Your task to perform on an android device: change the clock display to analog Image 0: 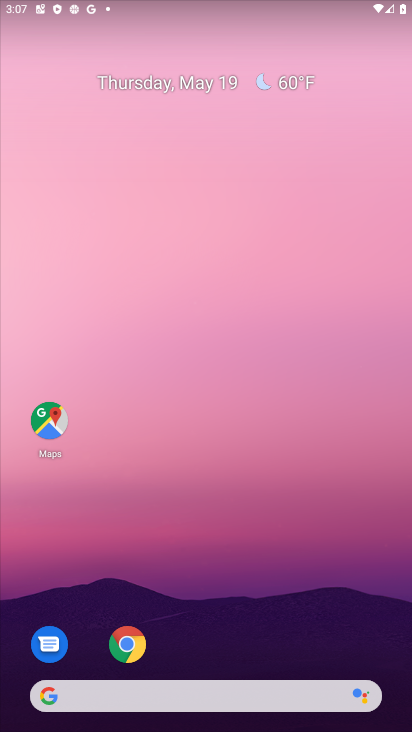
Step 0: drag from (278, 550) to (284, 203)
Your task to perform on an android device: change the clock display to analog Image 1: 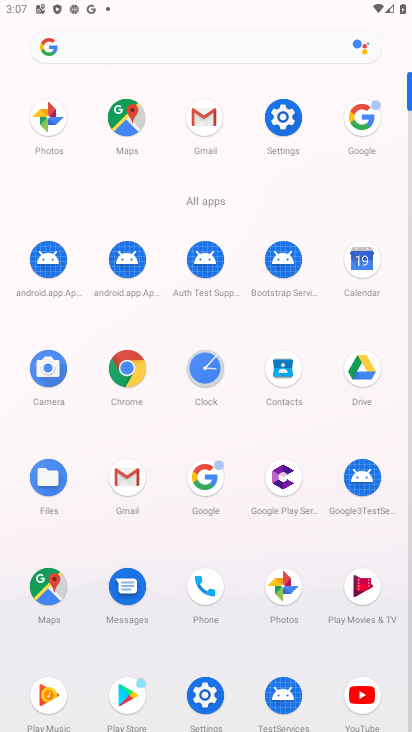
Step 1: click (205, 374)
Your task to perform on an android device: change the clock display to analog Image 2: 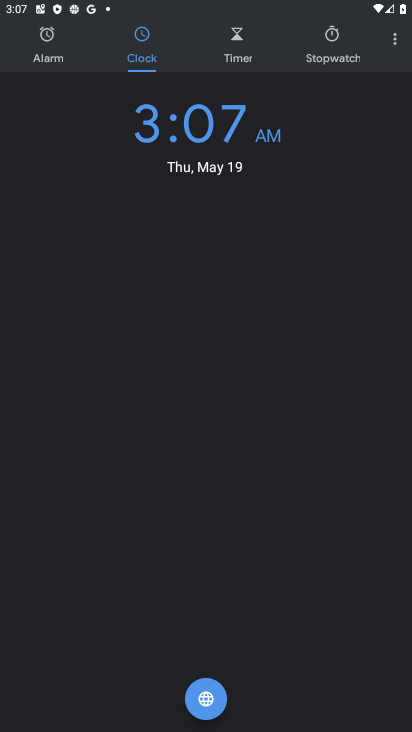
Step 2: click (393, 43)
Your task to perform on an android device: change the clock display to analog Image 3: 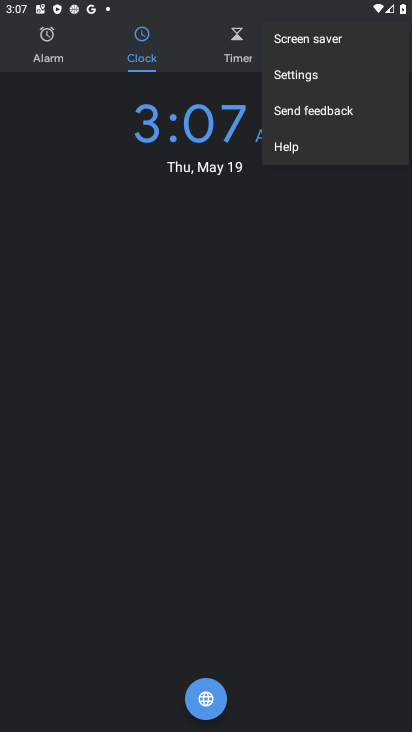
Step 3: click (337, 76)
Your task to perform on an android device: change the clock display to analog Image 4: 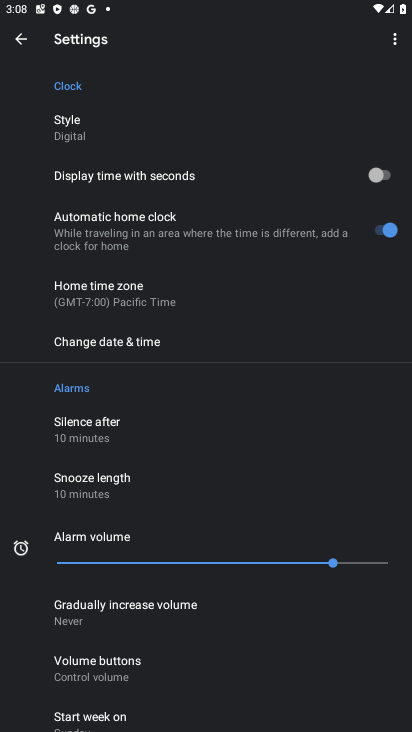
Step 4: click (147, 134)
Your task to perform on an android device: change the clock display to analog Image 5: 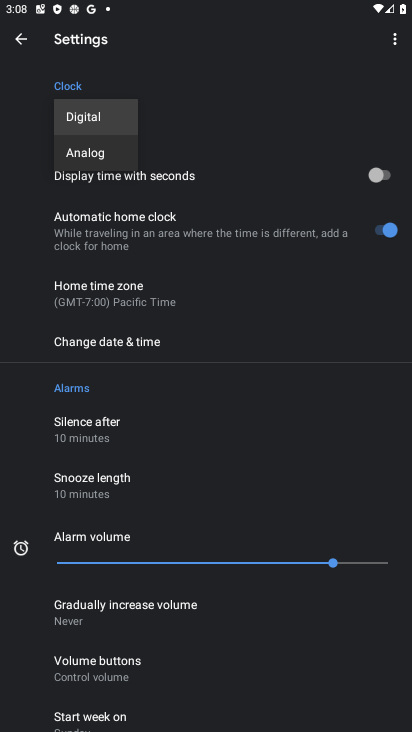
Step 5: click (88, 145)
Your task to perform on an android device: change the clock display to analog Image 6: 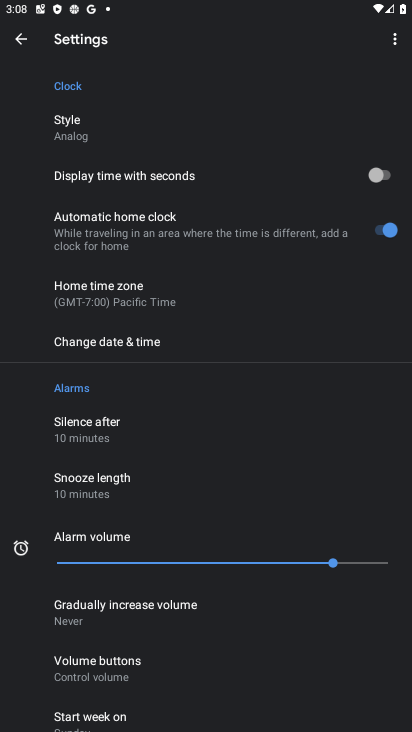
Step 6: task complete